Your task to perform on an android device: Go to CNN.com Image 0: 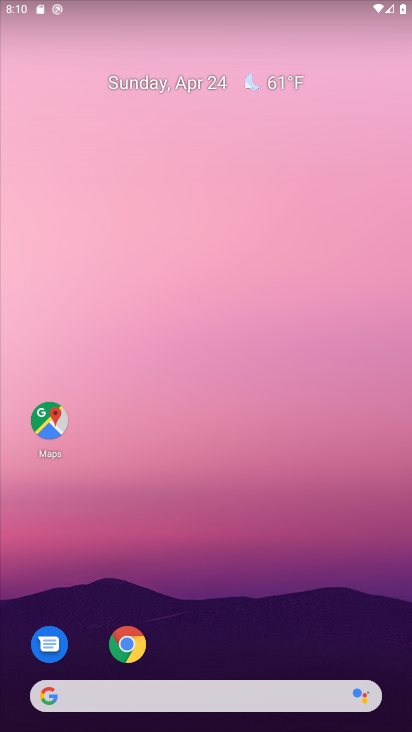
Step 0: click (125, 647)
Your task to perform on an android device: Go to CNN.com Image 1: 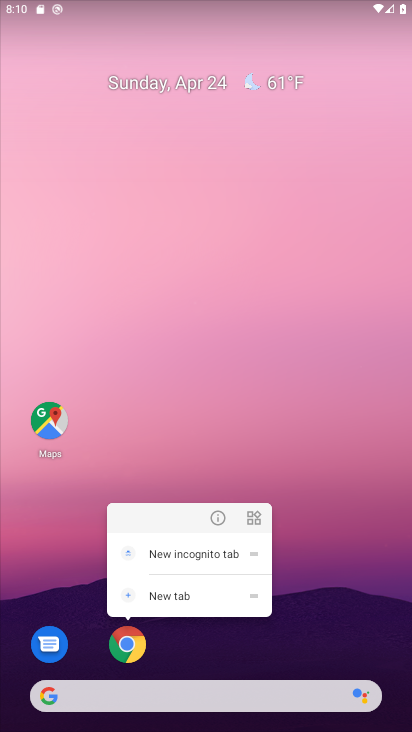
Step 1: click (192, 656)
Your task to perform on an android device: Go to CNN.com Image 2: 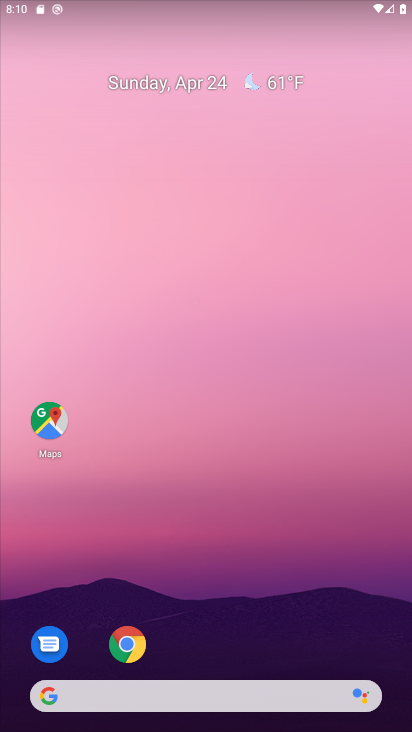
Step 2: drag from (408, 107) to (411, 42)
Your task to perform on an android device: Go to CNN.com Image 3: 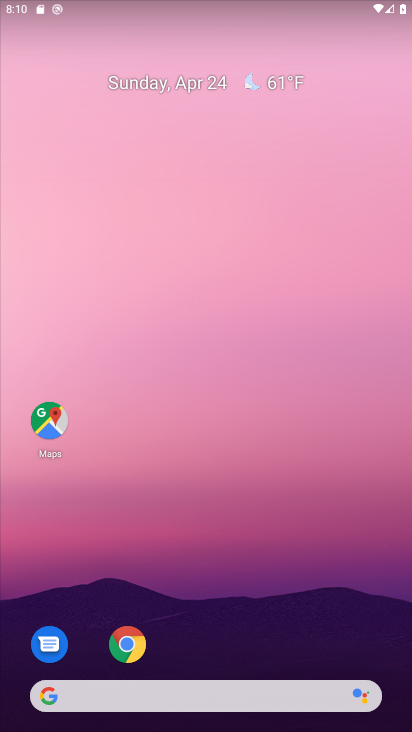
Step 3: drag from (222, 650) to (253, 83)
Your task to perform on an android device: Go to CNN.com Image 4: 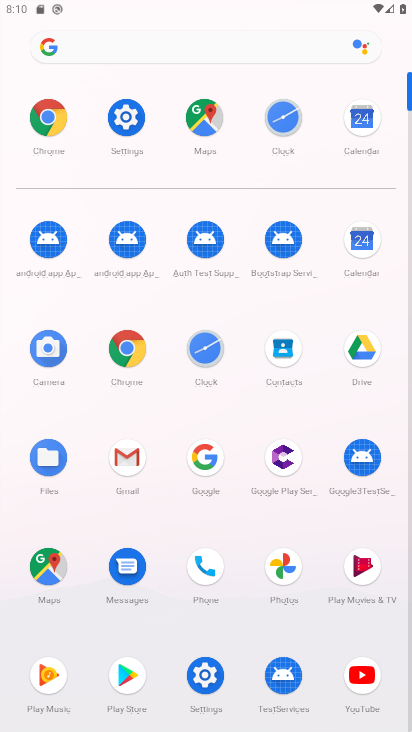
Step 4: click (127, 341)
Your task to perform on an android device: Go to CNN.com Image 5: 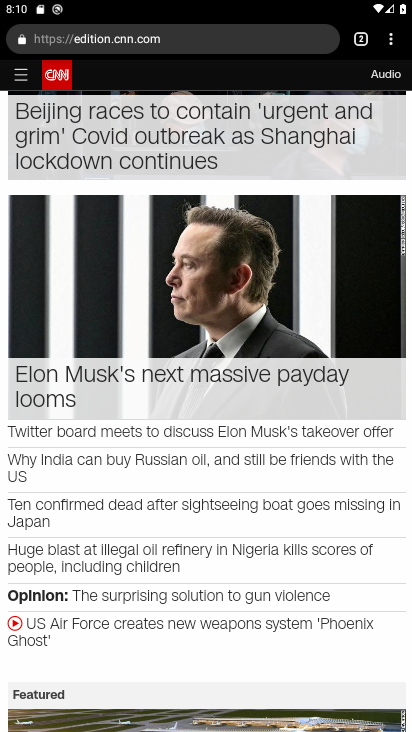
Step 5: task complete